Your task to perform on an android device: change keyboard looks Image 0: 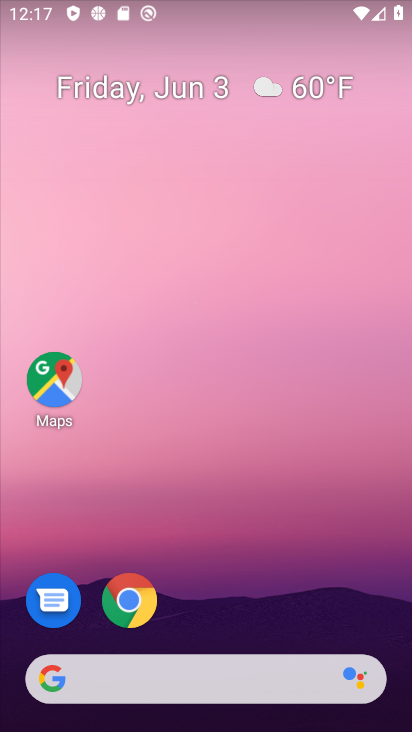
Step 0: drag from (282, 539) to (307, 123)
Your task to perform on an android device: change keyboard looks Image 1: 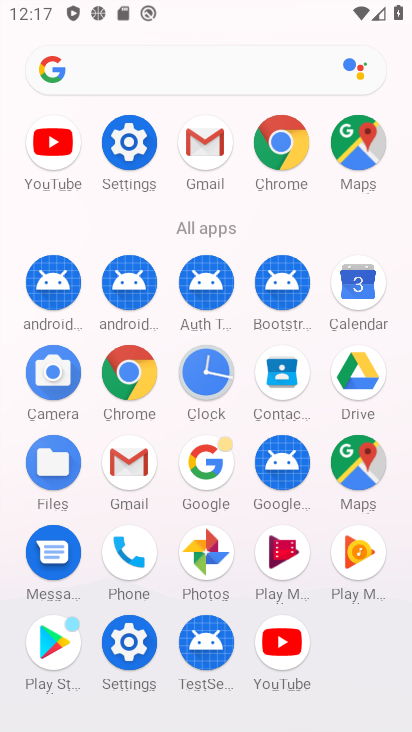
Step 1: click (141, 140)
Your task to perform on an android device: change keyboard looks Image 2: 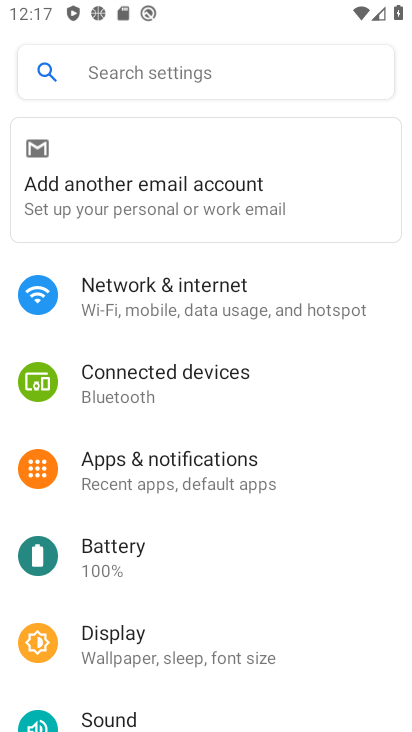
Step 2: drag from (206, 506) to (276, 168)
Your task to perform on an android device: change keyboard looks Image 3: 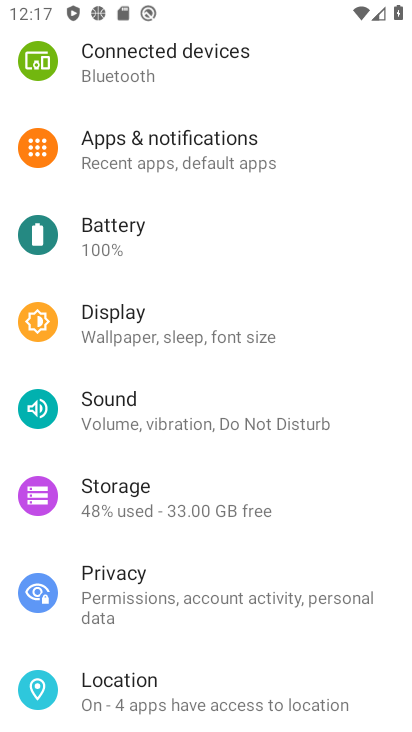
Step 3: drag from (186, 442) to (278, 137)
Your task to perform on an android device: change keyboard looks Image 4: 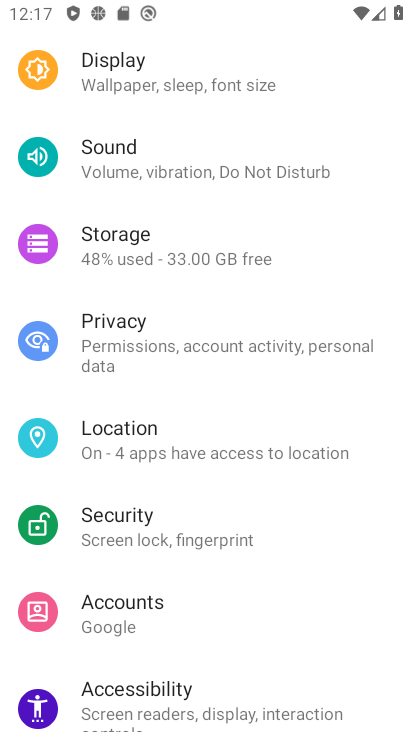
Step 4: drag from (228, 589) to (307, 137)
Your task to perform on an android device: change keyboard looks Image 5: 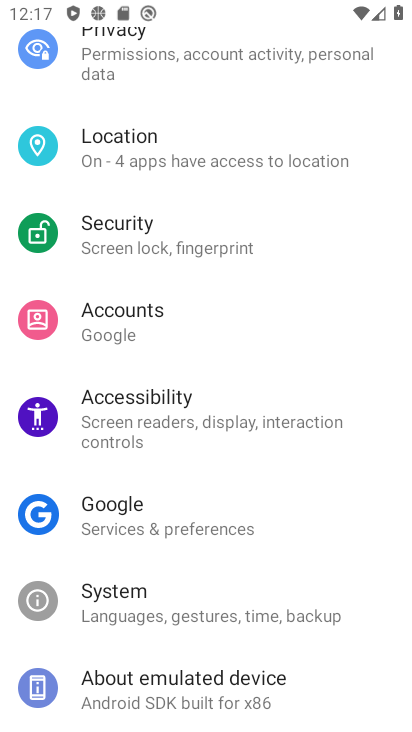
Step 5: drag from (204, 562) to (258, 252)
Your task to perform on an android device: change keyboard looks Image 6: 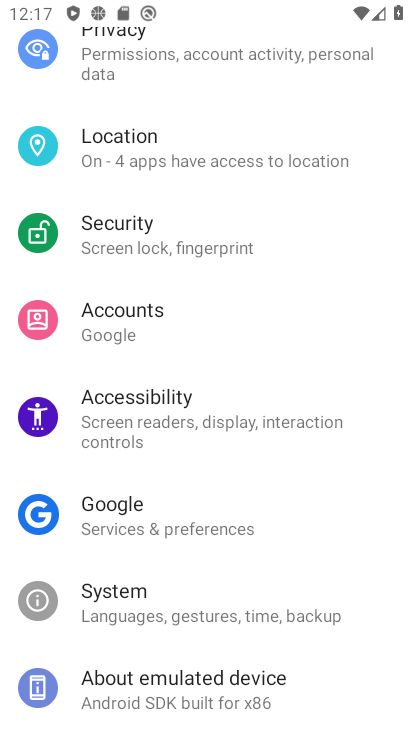
Step 6: drag from (312, 329) to (271, 154)
Your task to perform on an android device: change keyboard looks Image 7: 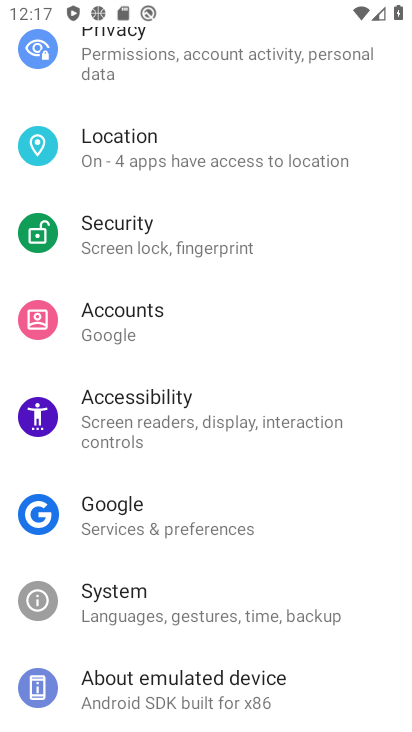
Step 7: drag from (292, 517) to (306, 235)
Your task to perform on an android device: change keyboard looks Image 8: 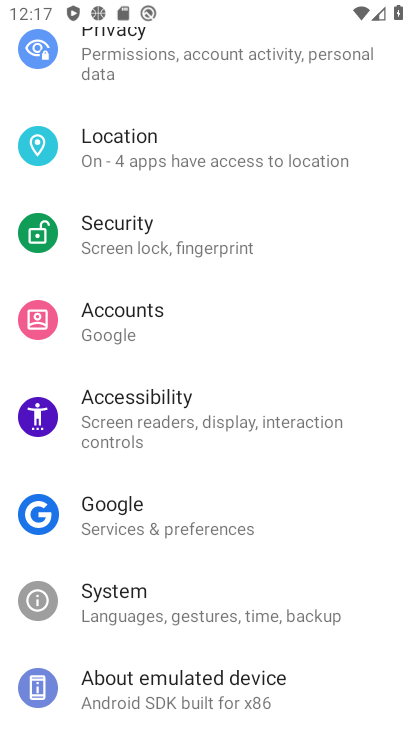
Step 8: drag from (276, 236) to (266, 444)
Your task to perform on an android device: change keyboard looks Image 9: 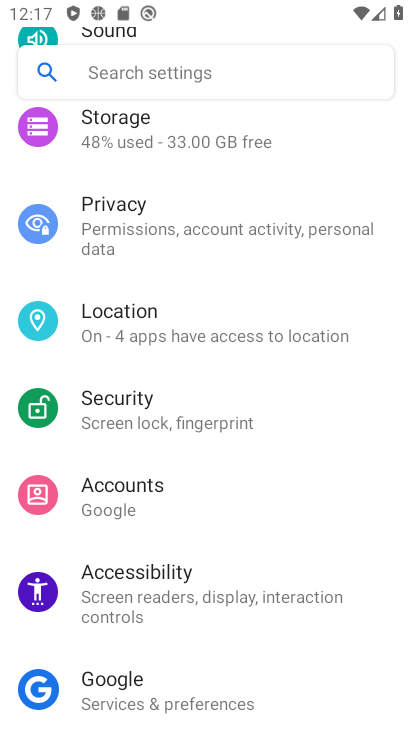
Step 9: drag from (259, 521) to (292, 192)
Your task to perform on an android device: change keyboard looks Image 10: 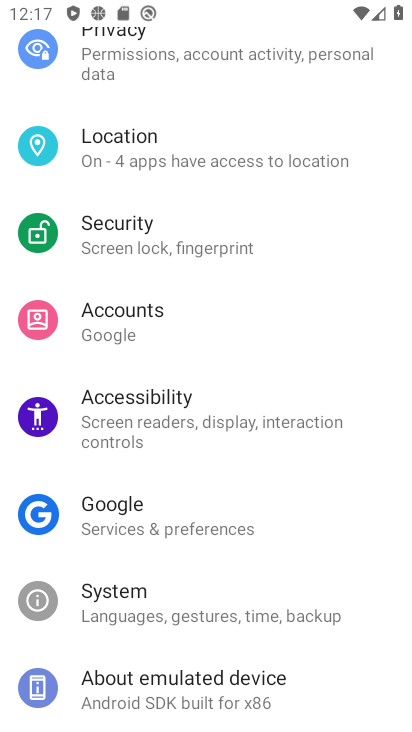
Step 10: click (206, 596)
Your task to perform on an android device: change keyboard looks Image 11: 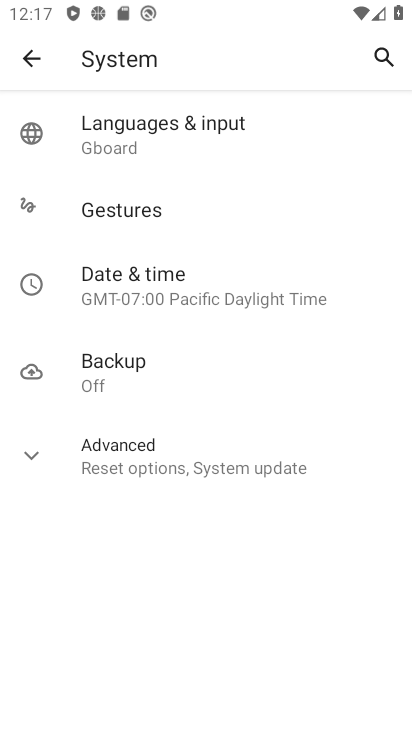
Step 11: click (162, 151)
Your task to perform on an android device: change keyboard looks Image 12: 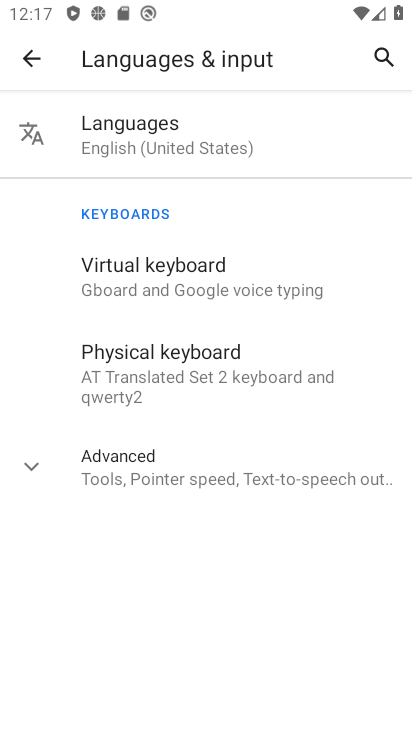
Step 12: click (203, 276)
Your task to perform on an android device: change keyboard looks Image 13: 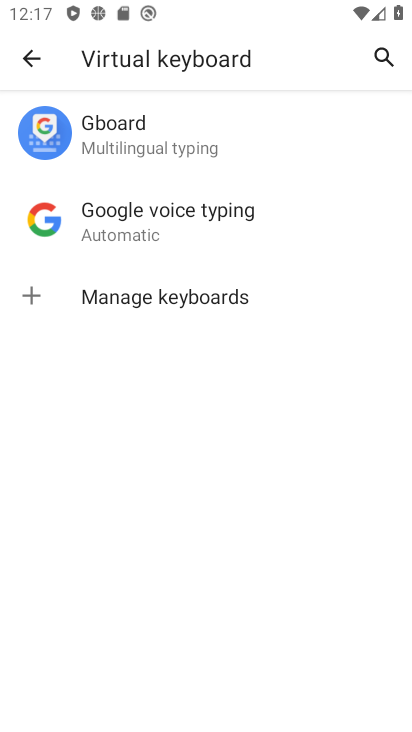
Step 13: click (127, 157)
Your task to perform on an android device: change keyboard looks Image 14: 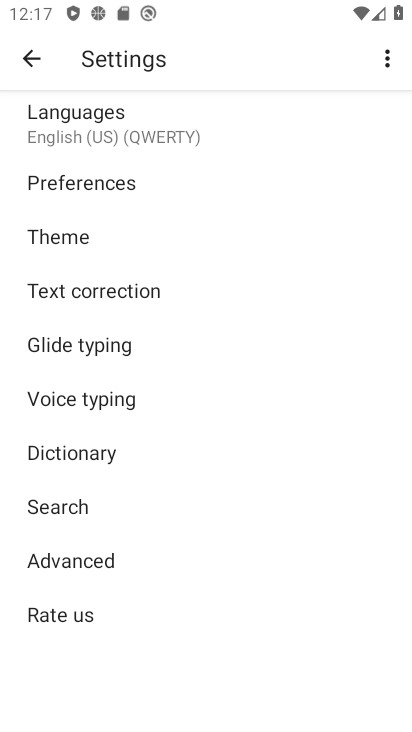
Step 14: click (75, 250)
Your task to perform on an android device: change keyboard looks Image 15: 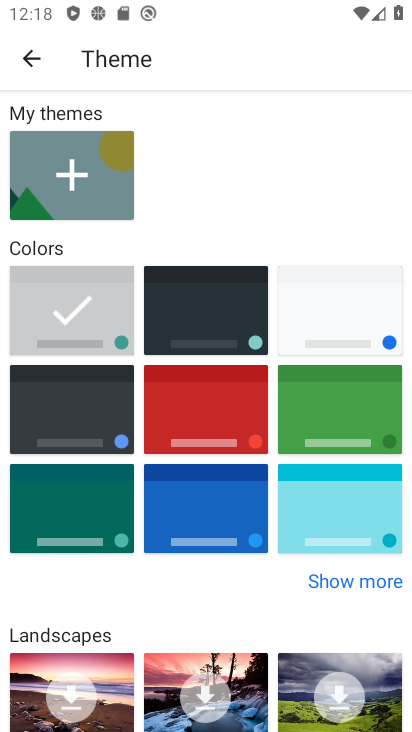
Step 15: click (303, 317)
Your task to perform on an android device: change keyboard looks Image 16: 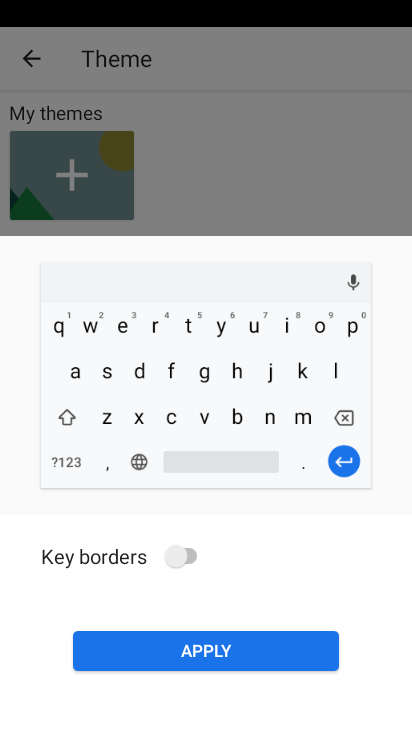
Step 16: click (251, 640)
Your task to perform on an android device: change keyboard looks Image 17: 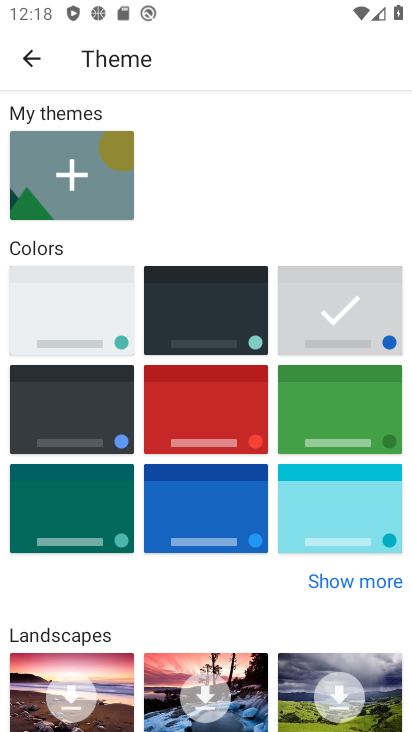
Step 17: task complete